Your task to perform on an android device: Open Youtube and go to the subscriptions tab Image 0: 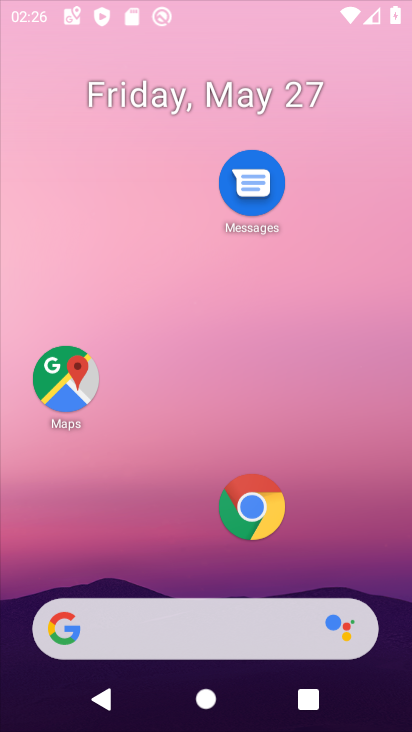
Step 0: click (341, 73)
Your task to perform on an android device: Open Youtube and go to the subscriptions tab Image 1: 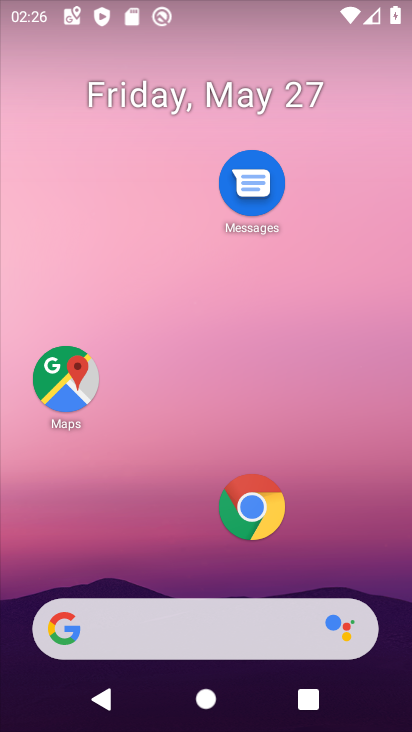
Step 1: drag from (220, 435) to (270, 255)
Your task to perform on an android device: Open Youtube and go to the subscriptions tab Image 2: 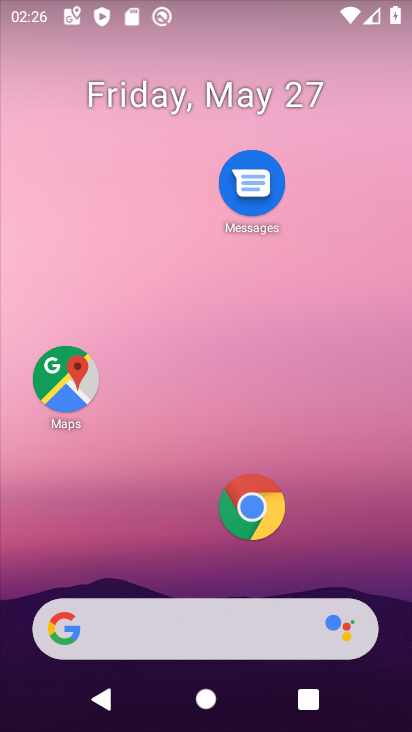
Step 2: drag from (188, 544) to (161, 4)
Your task to perform on an android device: Open Youtube and go to the subscriptions tab Image 3: 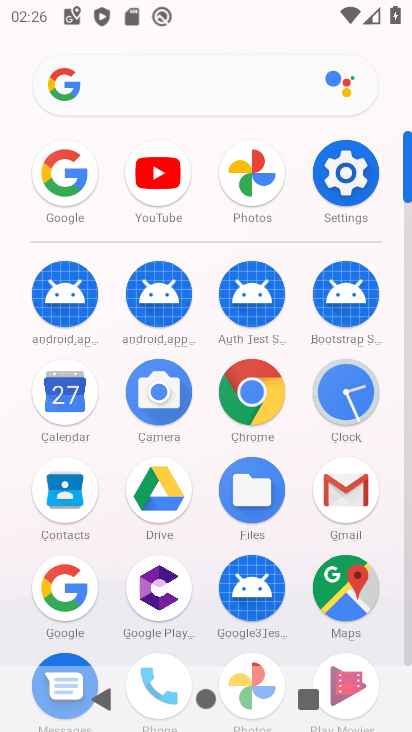
Step 3: click (162, 175)
Your task to perform on an android device: Open Youtube and go to the subscriptions tab Image 4: 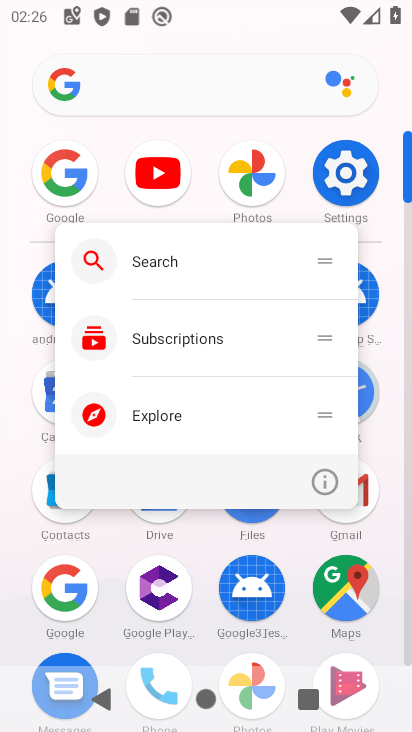
Step 4: click (329, 474)
Your task to perform on an android device: Open Youtube and go to the subscriptions tab Image 5: 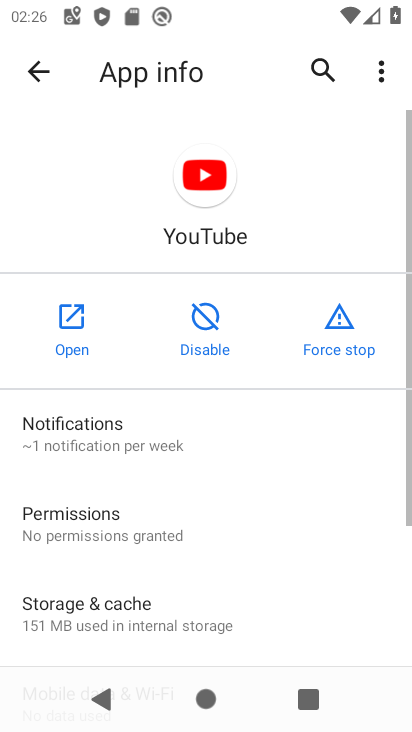
Step 5: click (69, 315)
Your task to perform on an android device: Open Youtube and go to the subscriptions tab Image 6: 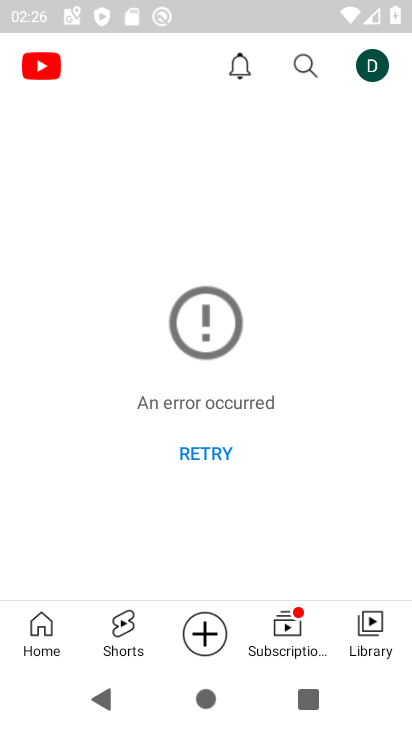
Step 6: click (279, 611)
Your task to perform on an android device: Open Youtube and go to the subscriptions tab Image 7: 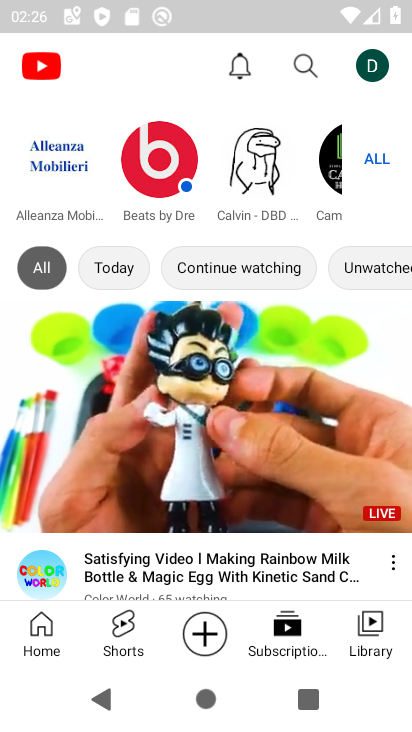
Step 7: task complete